Your task to perform on an android device: Open the calendar and show me this week's events? Image 0: 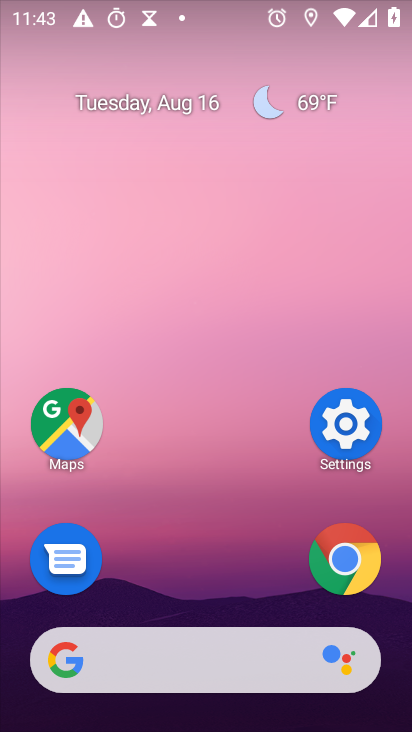
Step 0: drag from (164, 612) to (290, 173)
Your task to perform on an android device: Open the calendar and show me this week's events? Image 1: 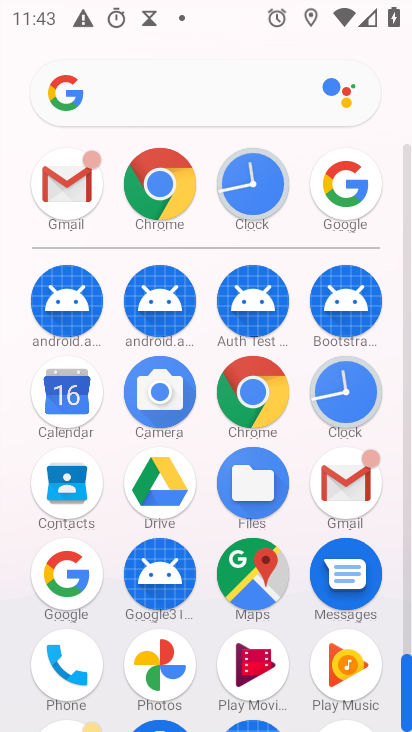
Step 1: click (68, 397)
Your task to perform on an android device: Open the calendar and show me this week's events? Image 2: 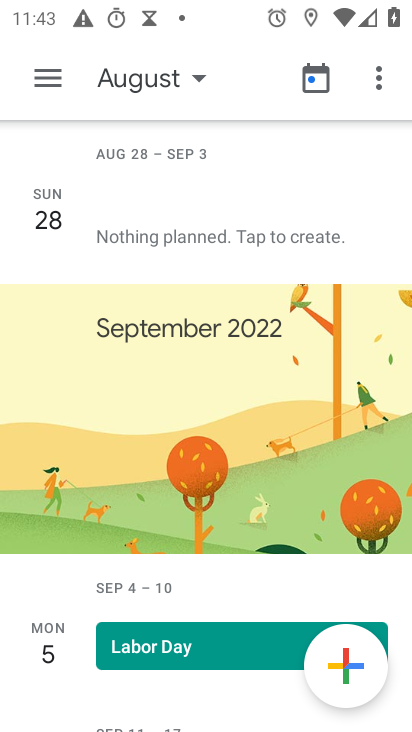
Step 2: click (138, 78)
Your task to perform on an android device: Open the calendar and show me this week's events? Image 3: 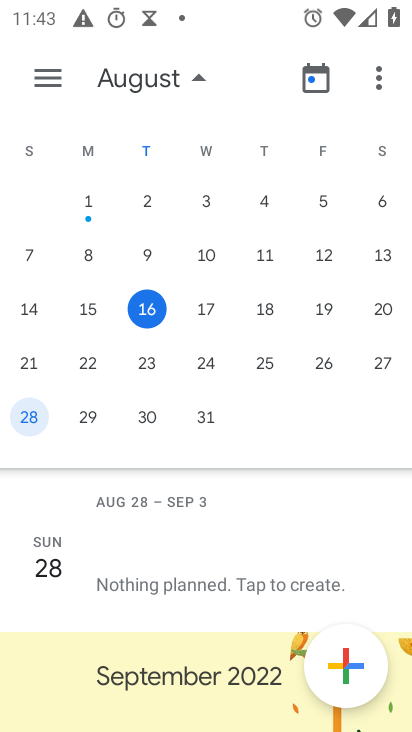
Step 3: click (153, 308)
Your task to perform on an android device: Open the calendar and show me this week's events? Image 4: 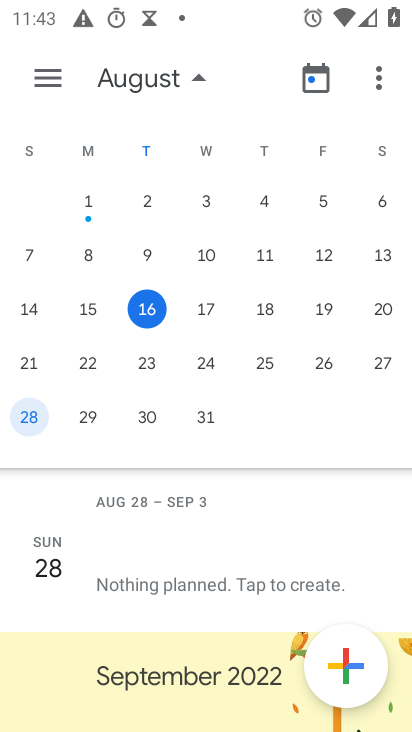
Step 4: click (152, 308)
Your task to perform on an android device: Open the calendar and show me this week's events? Image 5: 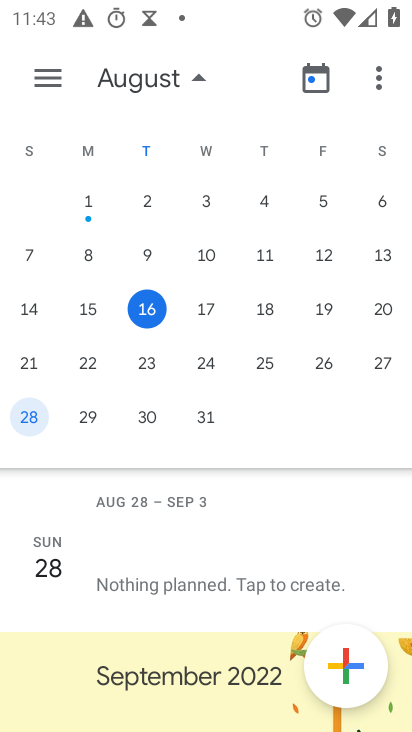
Step 5: click (159, 301)
Your task to perform on an android device: Open the calendar and show me this week's events? Image 6: 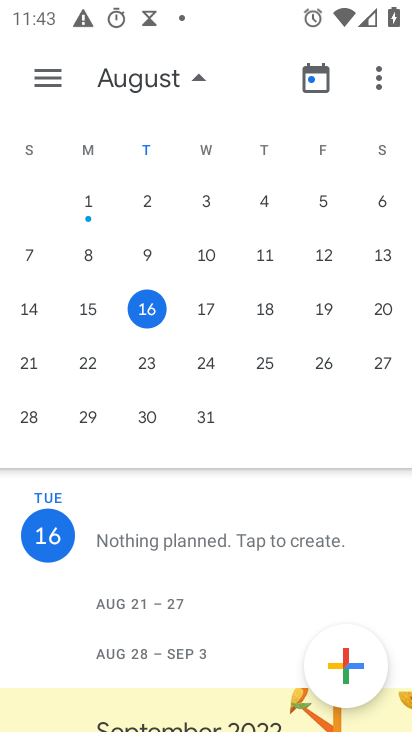
Step 6: click (38, 77)
Your task to perform on an android device: Open the calendar and show me this week's events? Image 7: 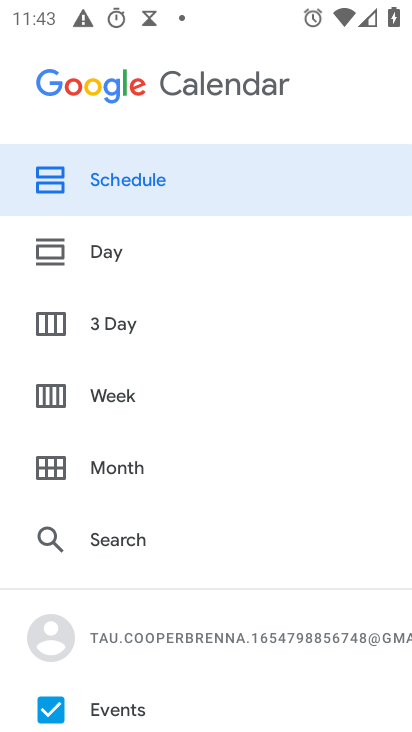
Step 7: click (109, 393)
Your task to perform on an android device: Open the calendar and show me this week's events? Image 8: 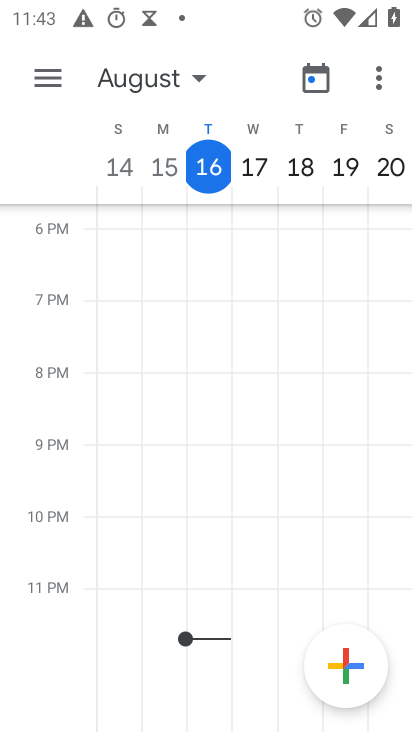
Step 8: click (54, 81)
Your task to perform on an android device: Open the calendar and show me this week's events? Image 9: 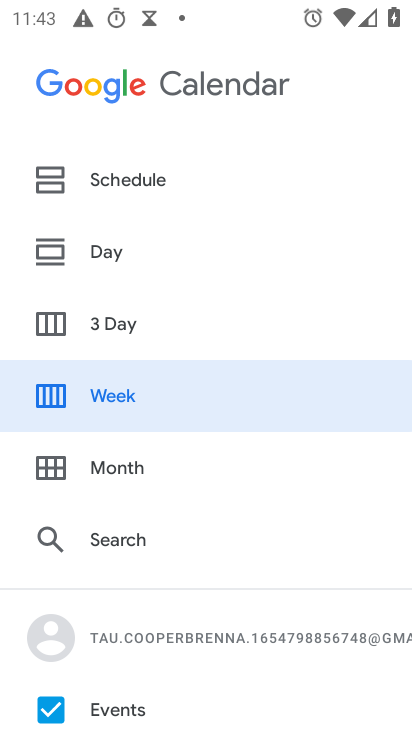
Step 9: click (113, 179)
Your task to perform on an android device: Open the calendar and show me this week's events? Image 10: 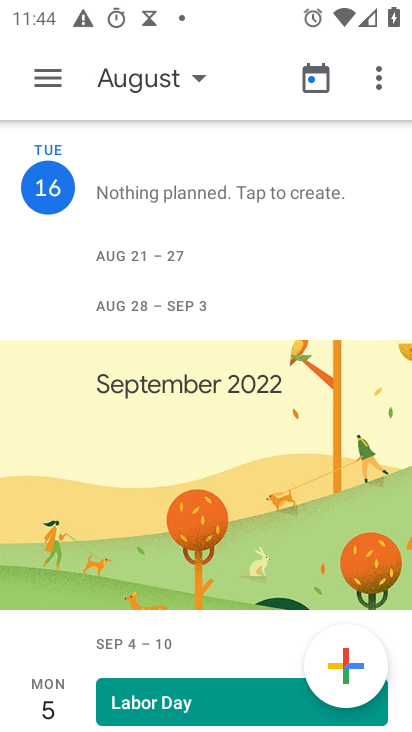
Step 10: task complete